Your task to perform on an android device: turn on location history Image 0: 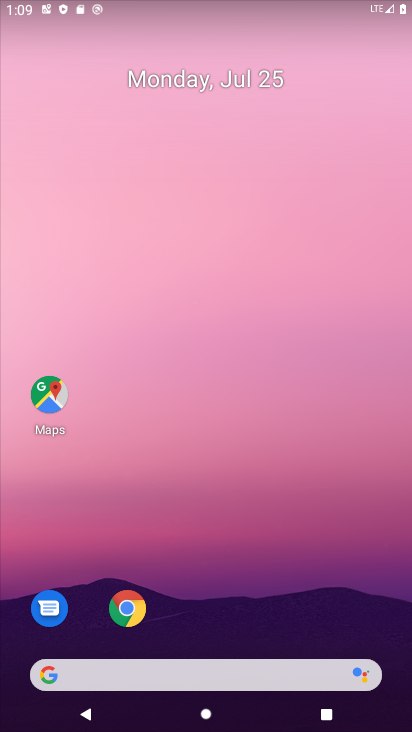
Step 0: click (41, 385)
Your task to perform on an android device: turn on location history Image 1: 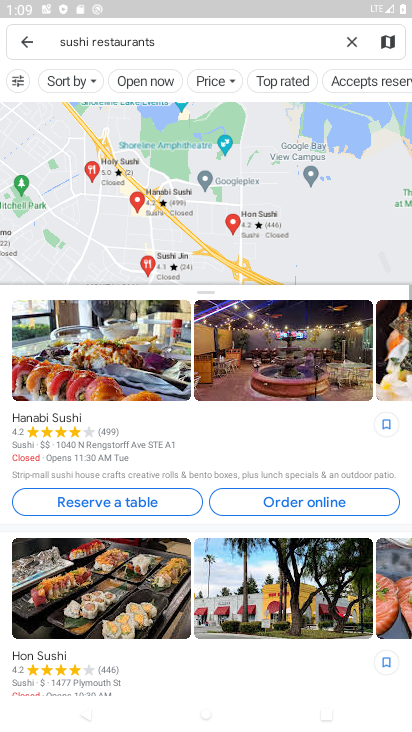
Step 1: click (349, 42)
Your task to perform on an android device: turn on location history Image 2: 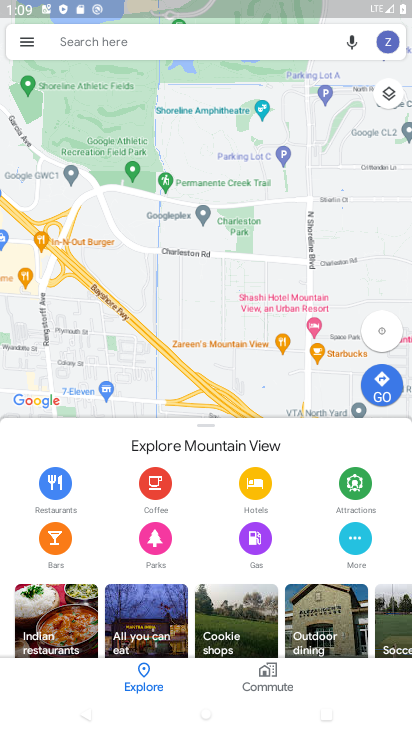
Step 2: click (28, 46)
Your task to perform on an android device: turn on location history Image 3: 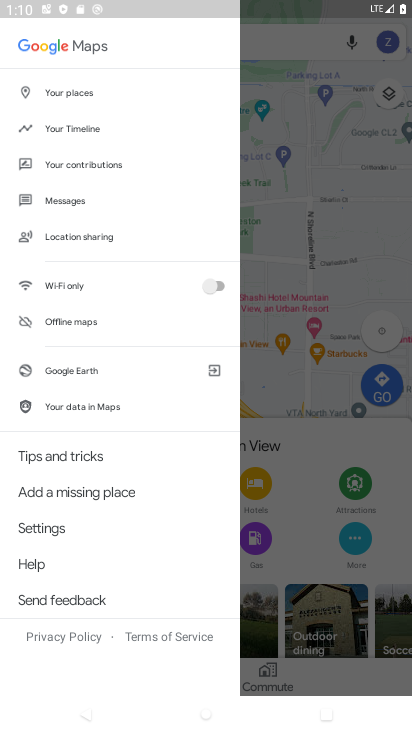
Step 3: click (65, 130)
Your task to perform on an android device: turn on location history Image 4: 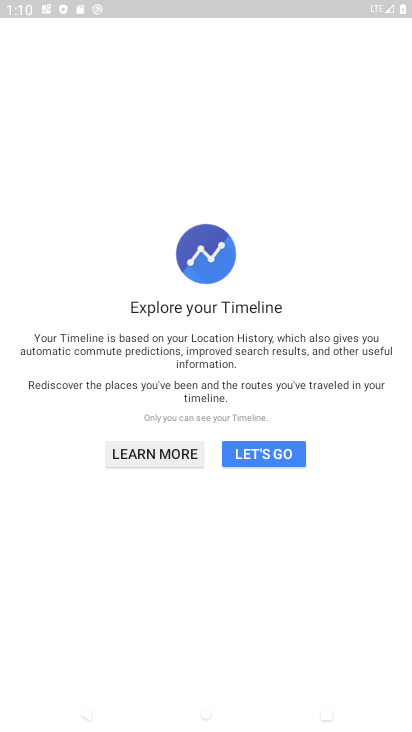
Step 4: click (256, 447)
Your task to perform on an android device: turn on location history Image 5: 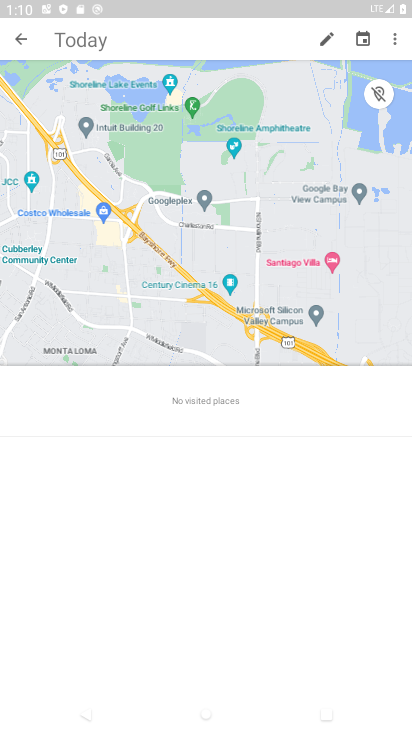
Step 5: click (394, 36)
Your task to perform on an android device: turn on location history Image 6: 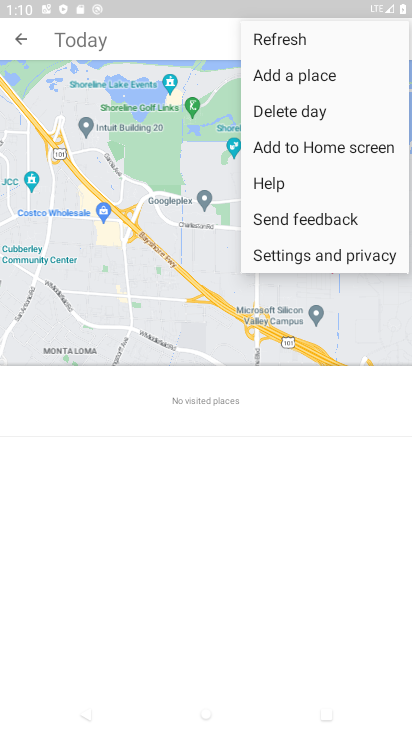
Step 6: click (274, 253)
Your task to perform on an android device: turn on location history Image 7: 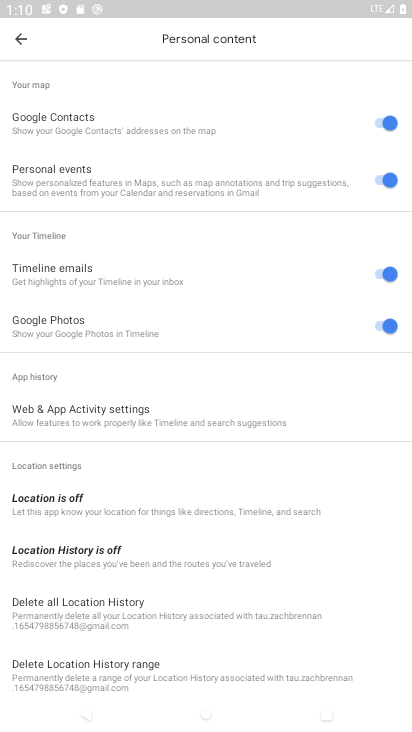
Step 7: click (92, 560)
Your task to perform on an android device: turn on location history Image 8: 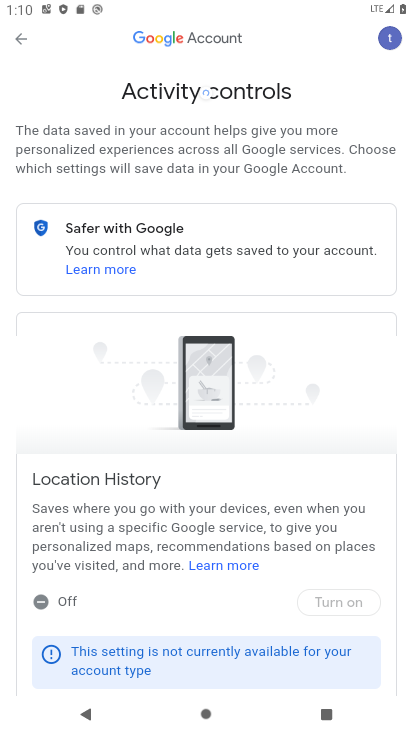
Step 8: click (328, 604)
Your task to perform on an android device: turn on location history Image 9: 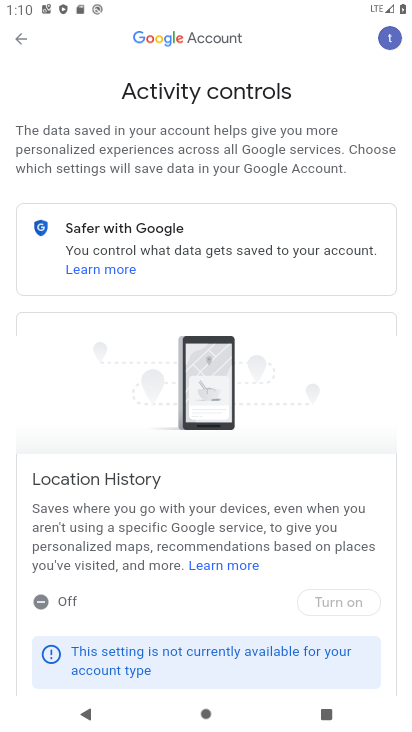
Step 9: drag from (192, 587) to (200, 250)
Your task to perform on an android device: turn on location history Image 10: 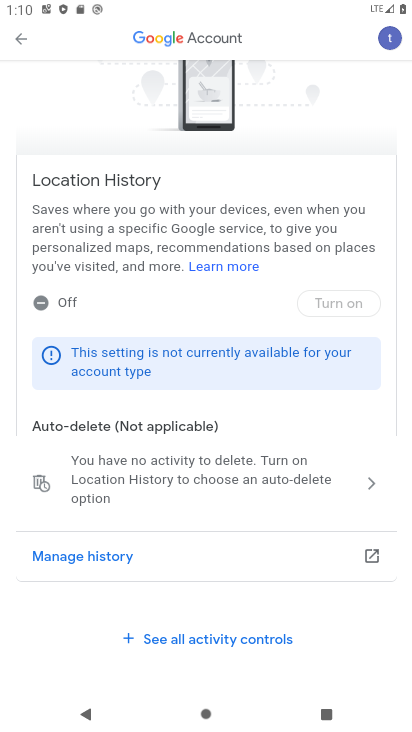
Step 10: click (352, 302)
Your task to perform on an android device: turn on location history Image 11: 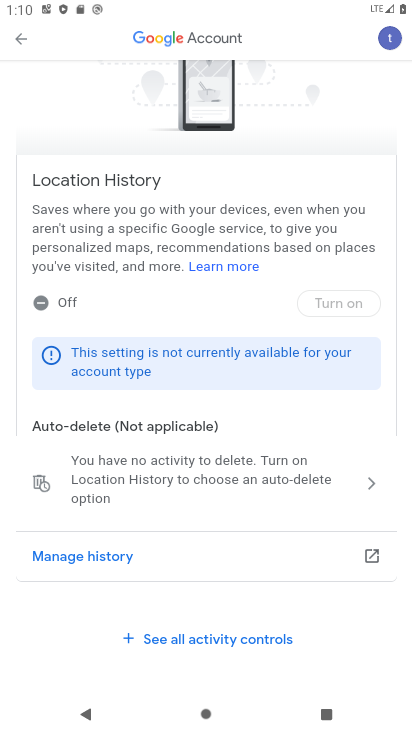
Step 11: click (352, 302)
Your task to perform on an android device: turn on location history Image 12: 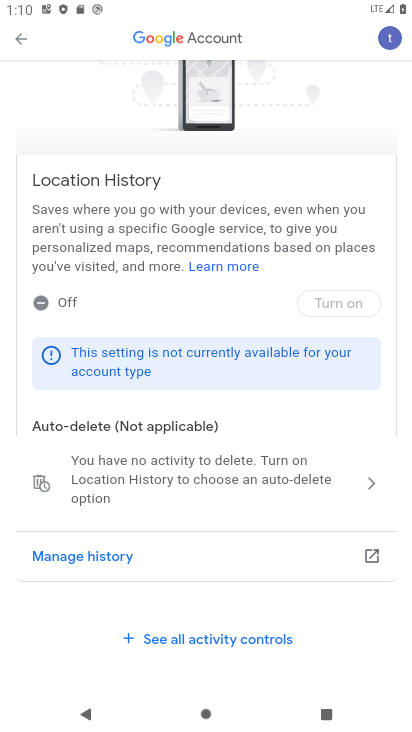
Step 12: task complete